Your task to perform on an android device: Go to accessibility settings Image 0: 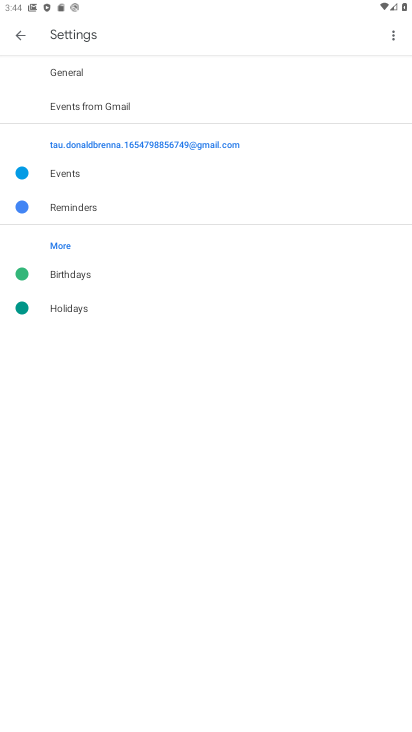
Step 0: drag from (147, 8) to (170, 500)
Your task to perform on an android device: Go to accessibility settings Image 1: 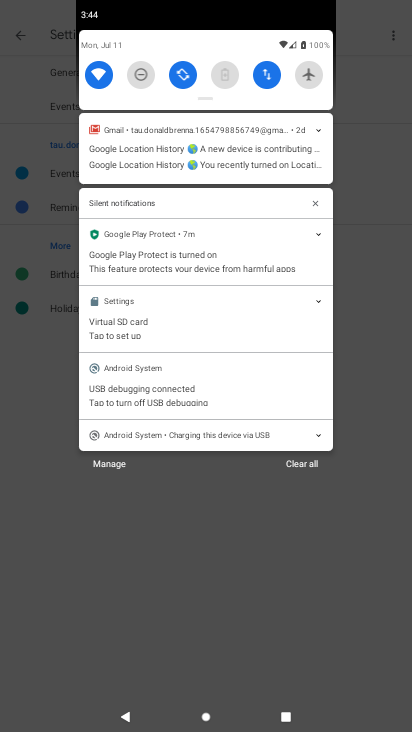
Step 1: drag from (182, 39) to (177, 511)
Your task to perform on an android device: Go to accessibility settings Image 2: 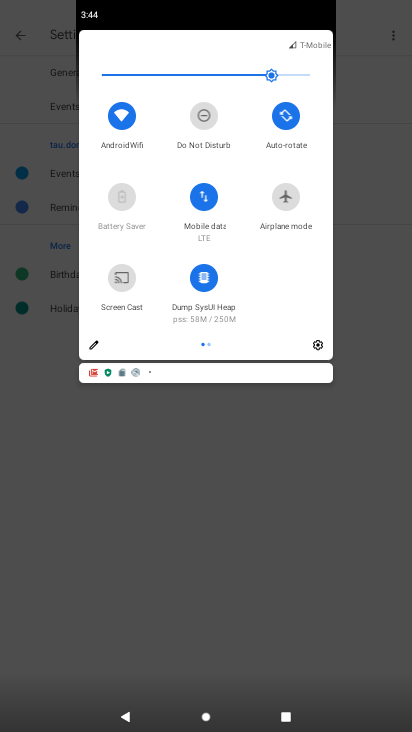
Step 2: click (323, 351)
Your task to perform on an android device: Go to accessibility settings Image 3: 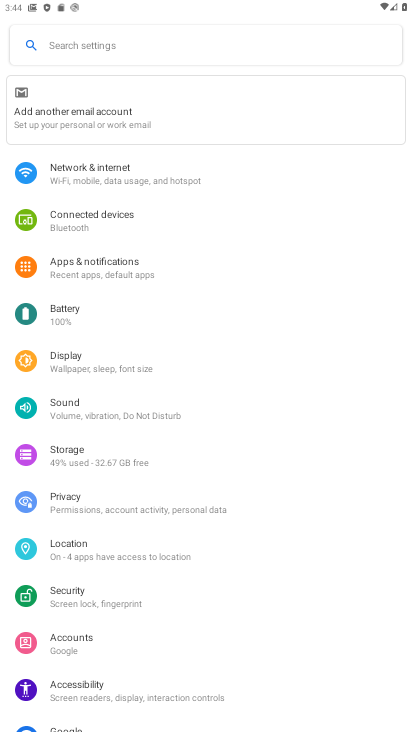
Step 3: click (115, 678)
Your task to perform on an android device: Go to accessibility settings Image 4: 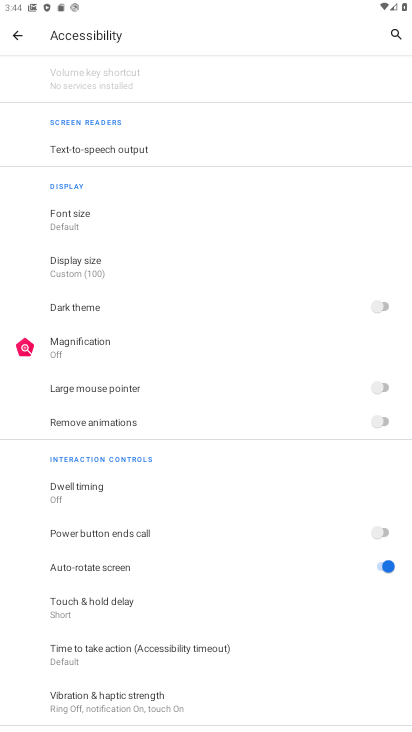
Step 4: task complete